Your task to perform on an android device: open app "Nova Launcher" (install if not already installed) Image 0: 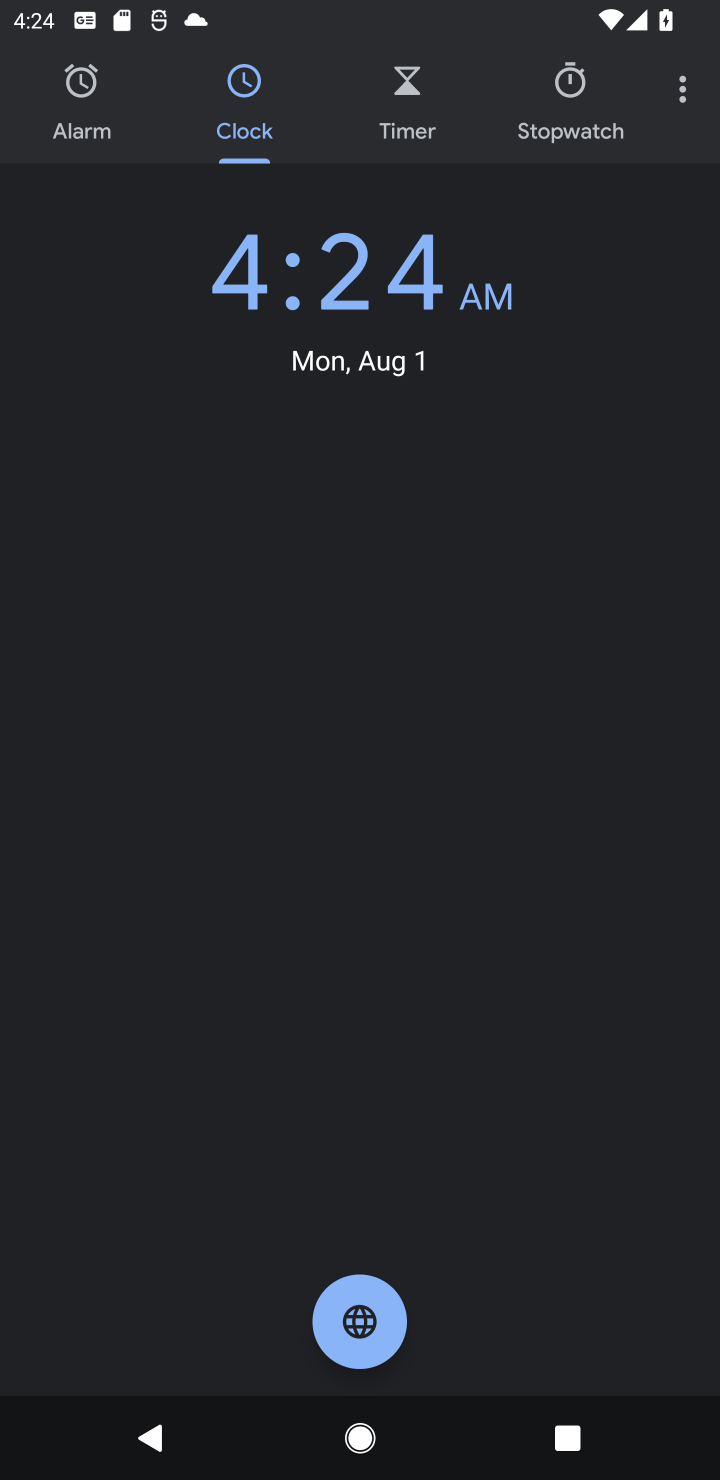
Step 0: press home button
Your task to perform on an android device: open app "Nova Launcher" (install if not already installed) Image 1: 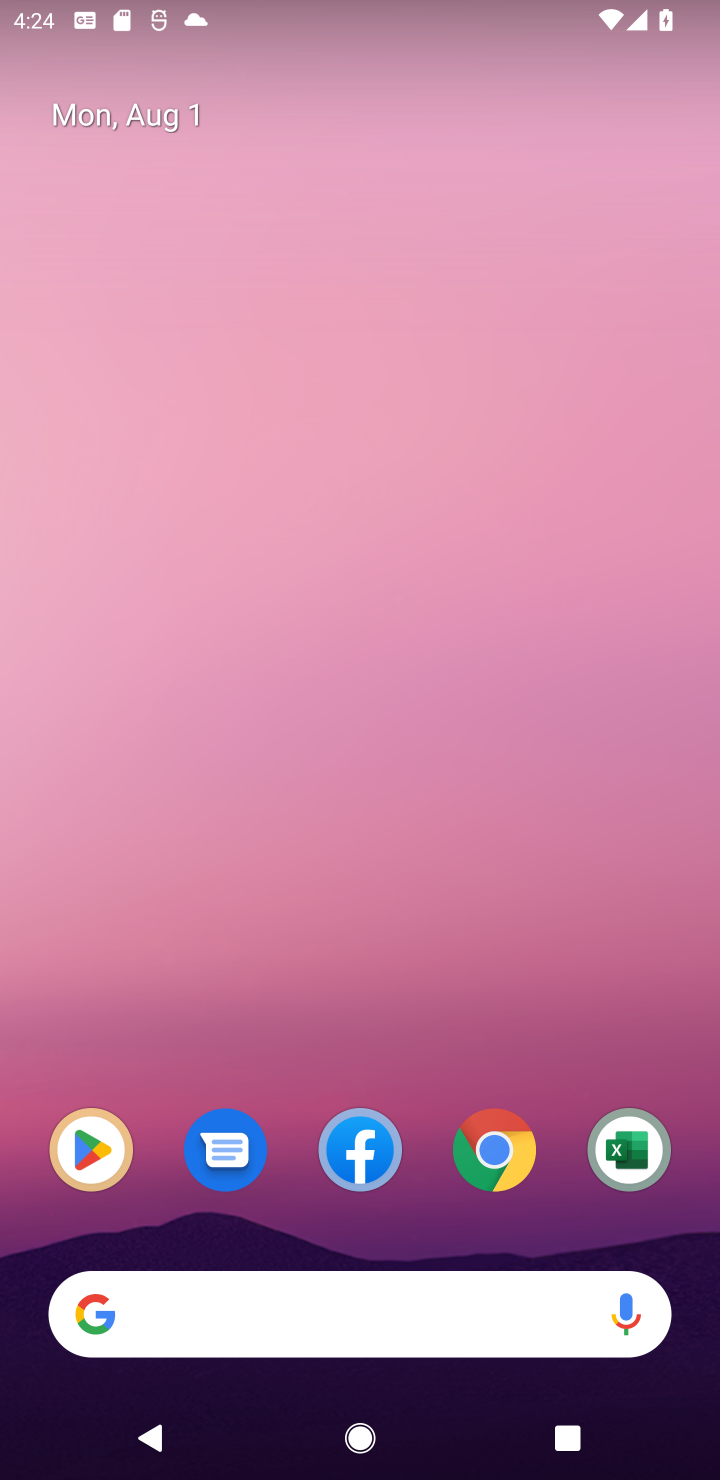
Step 1: click (113, 1173)
Your task to perform on an android device: open app "Nova Launcher" (install if not already installed) Image 2: 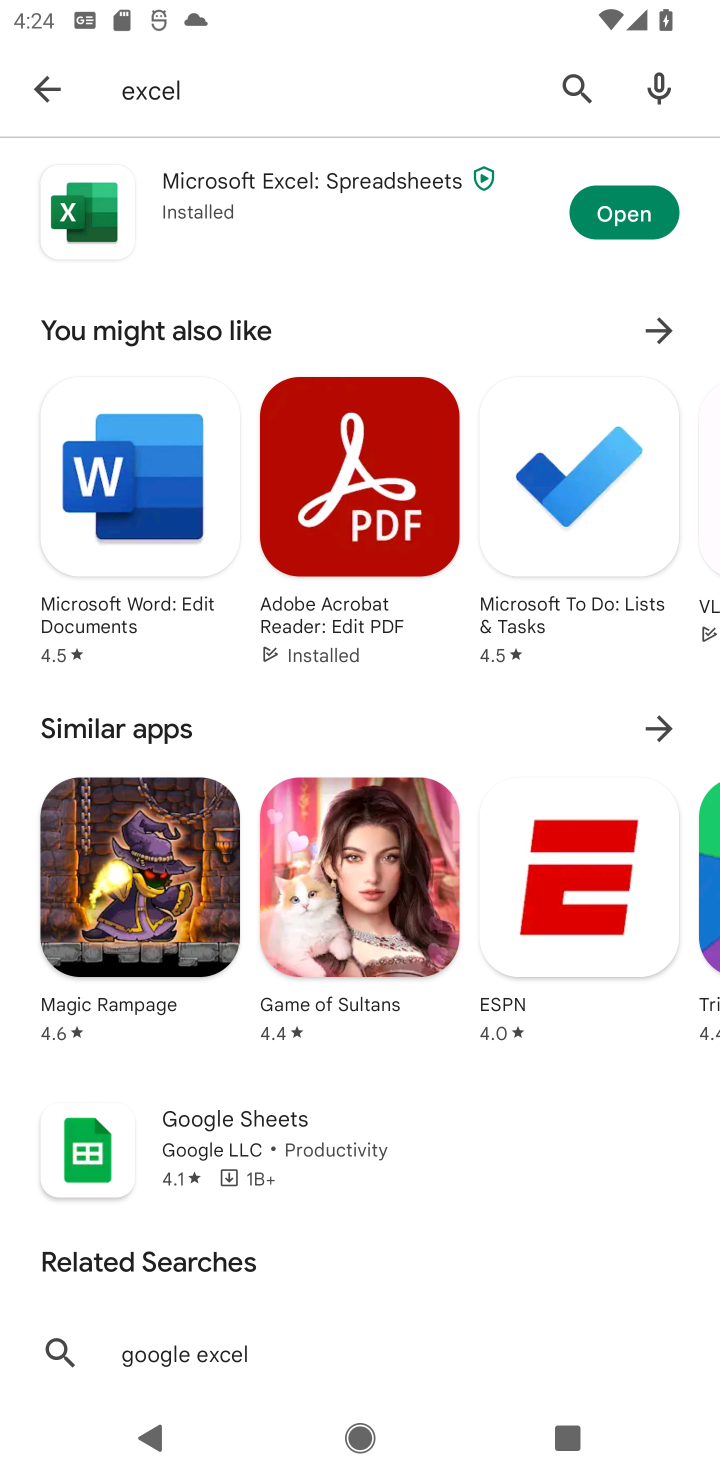
Step 2: click (577, 98)
Your task to perform on an android device: open app "Nova Launcher" (install if not already installed) Image 3: 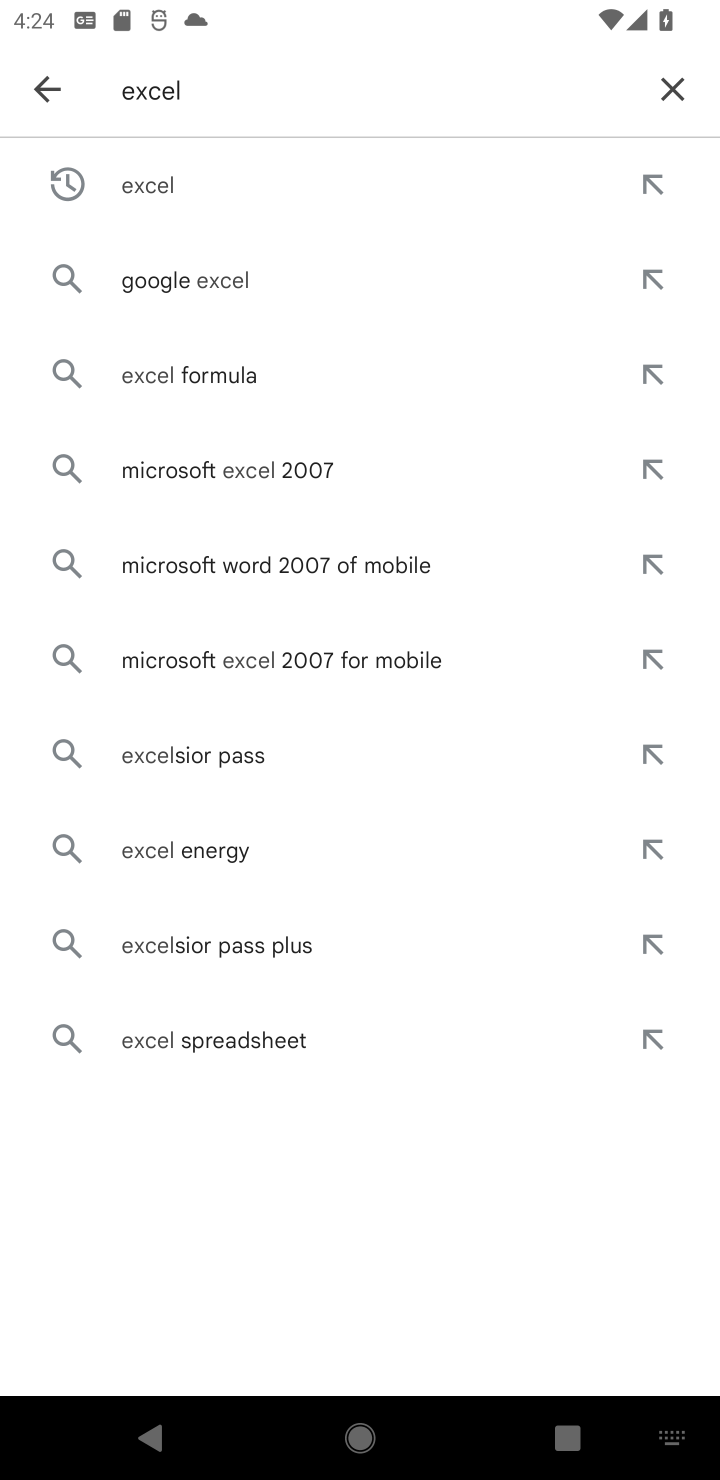
Step 3: click (673, 99)
Your task to perform on an android device: open app "Nova Launcher" (install if not already installed) Image 4: 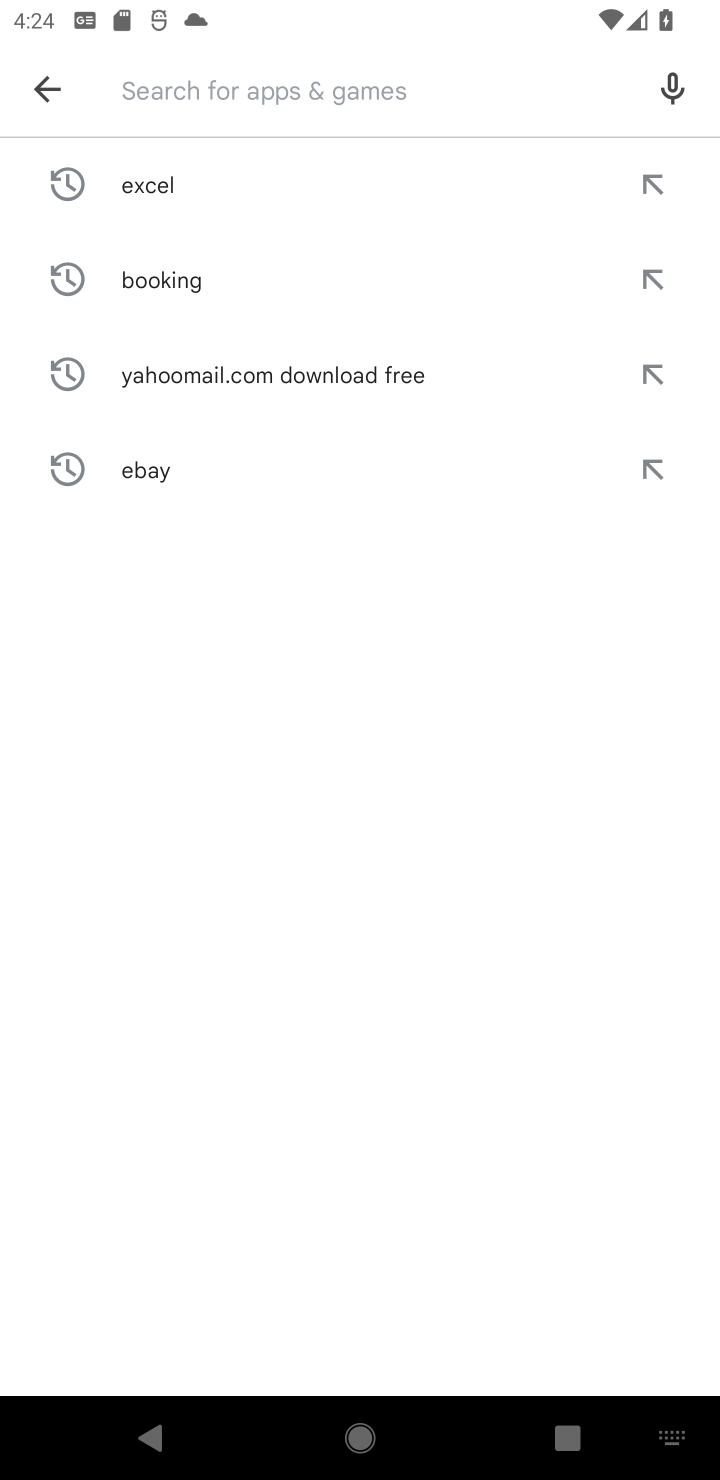
Step 4: type "nova launcher"
Your task to perform on an android device: open app "Nova Launcher" (install if not already installed) Image 5: 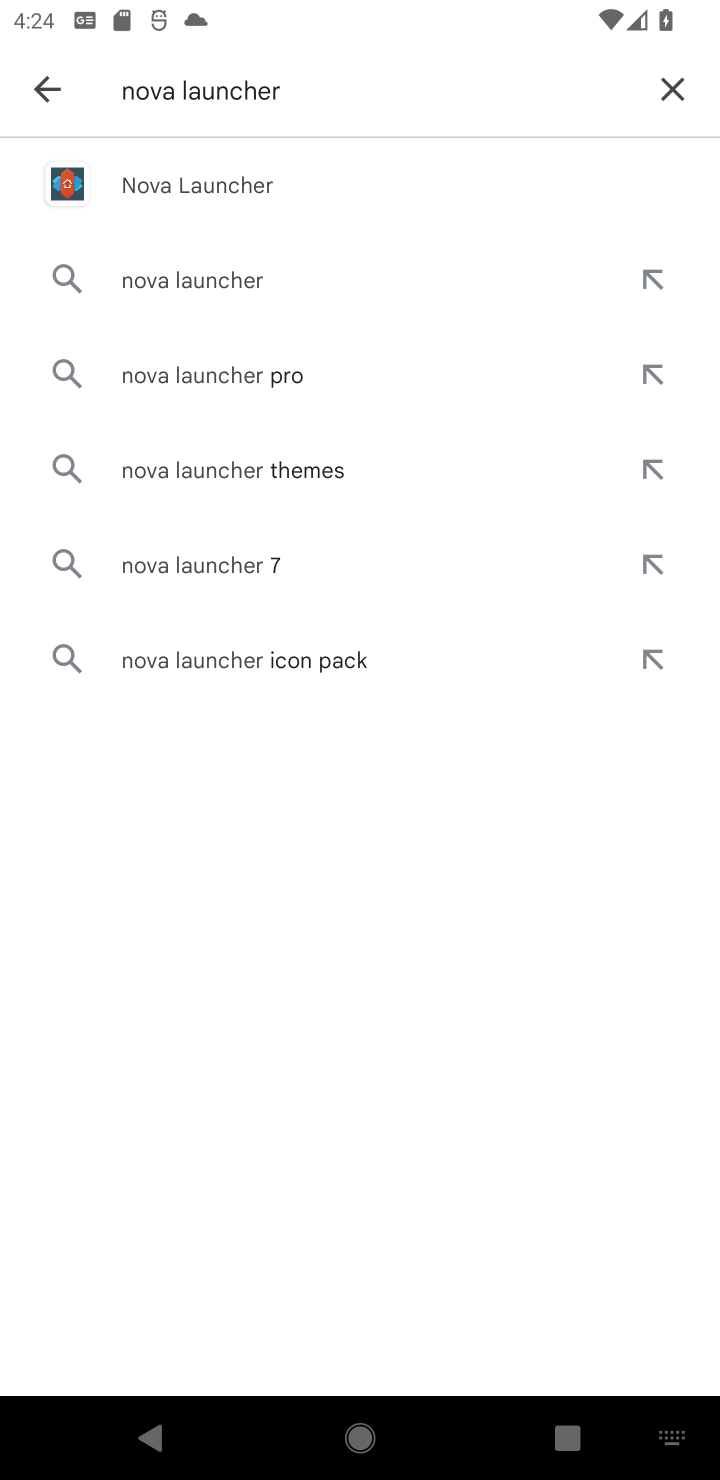
Step 5: click (251, 190)
Your task to perform on an android device: open app "Nova Launcher" (install if not already installed) Image 6: 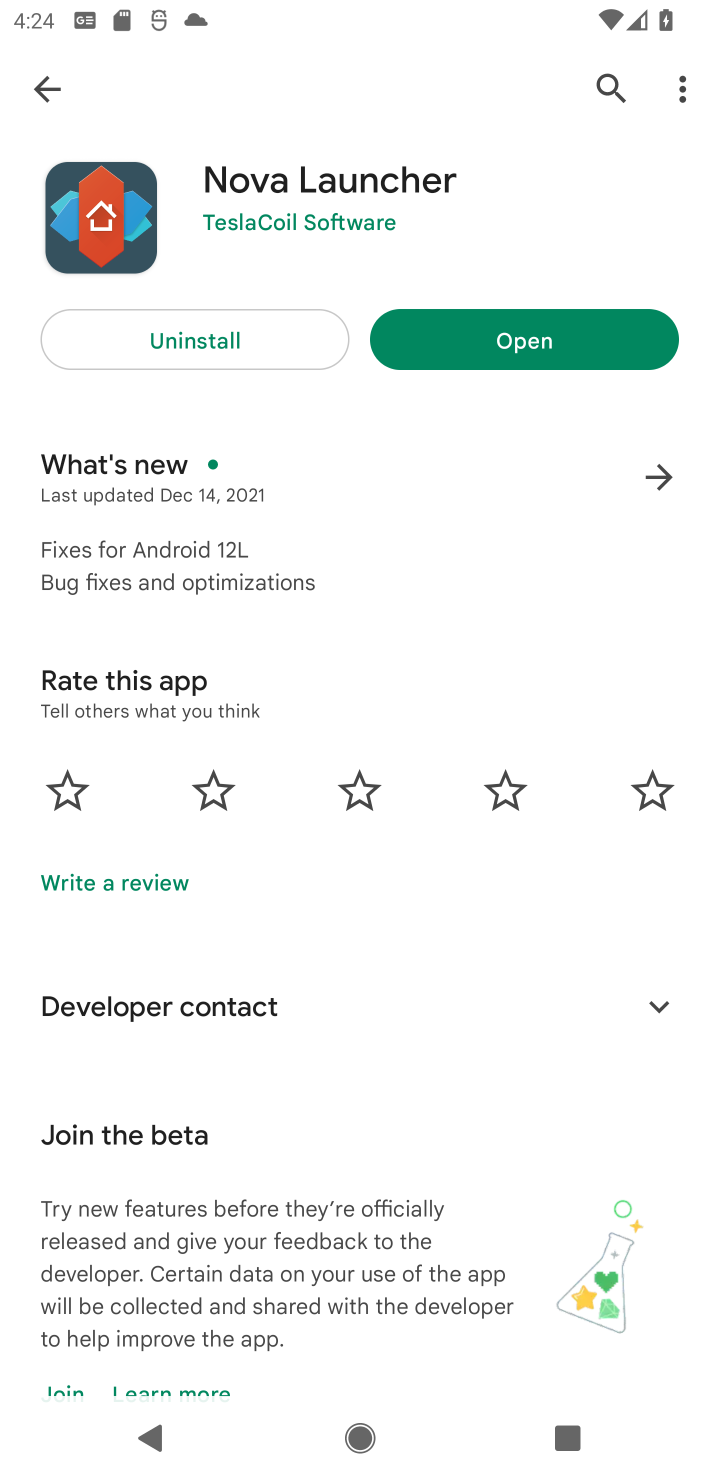
Step 6: click (593, 329)
Your task to perform on an android device: open app "Nova Launcher" (install if not already installed) Image 7: 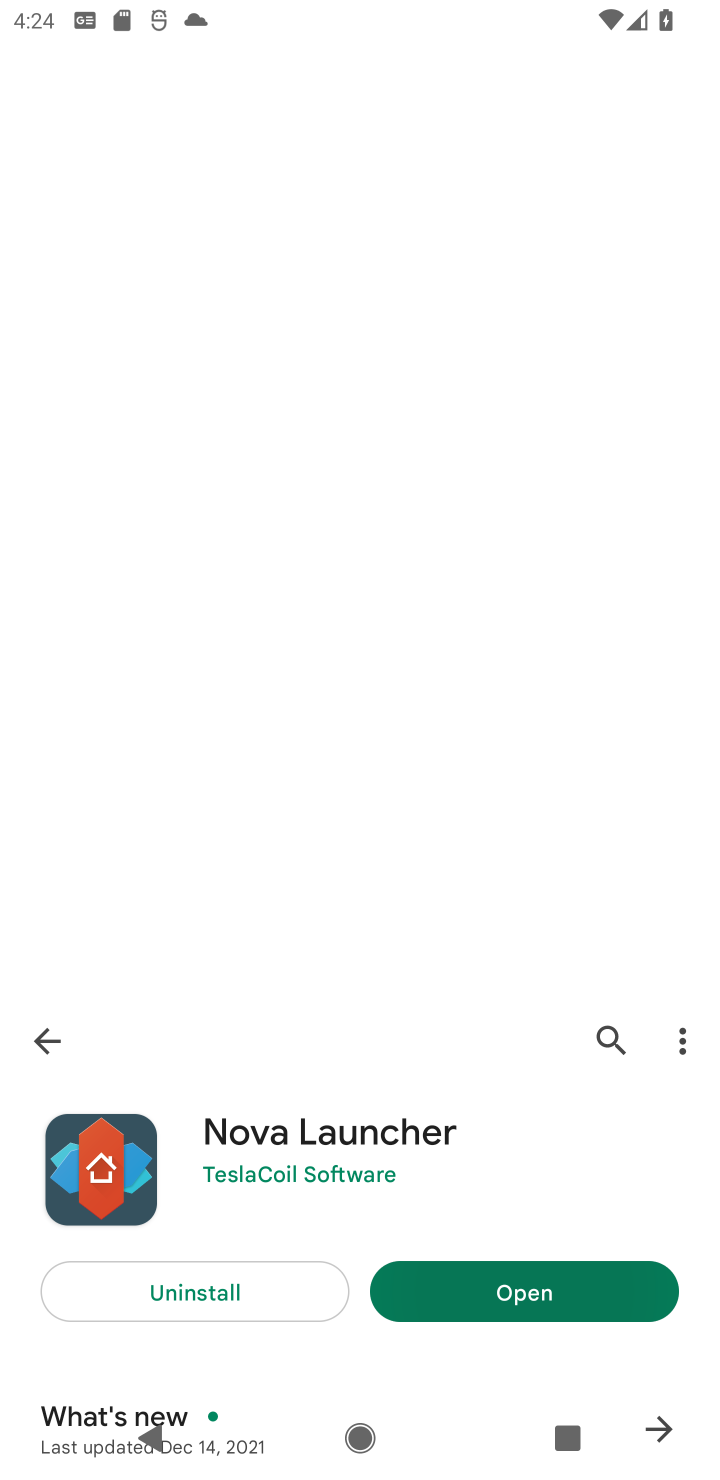
Step 7: task complete